Your task to perform on an android device: Open the Play Movies app and select the watchlist tab. Image 0: 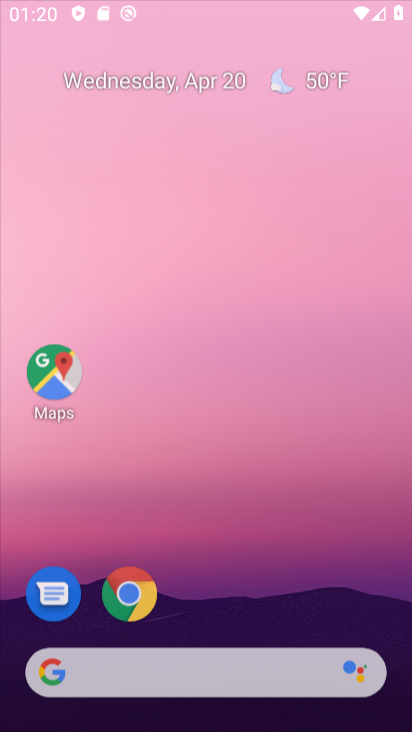
Step 0: click (142, 597)
Your task to perform on an android device: Open the Play Movies app and select the watchlist tab. Image 1: 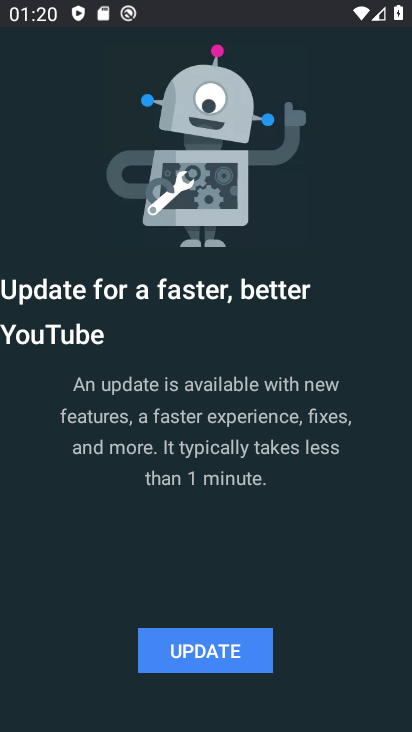
Step 1: click (222, 657)
Your task to perform on an android device: Open the Play Movies app and select the watchlist tab. Image 2: 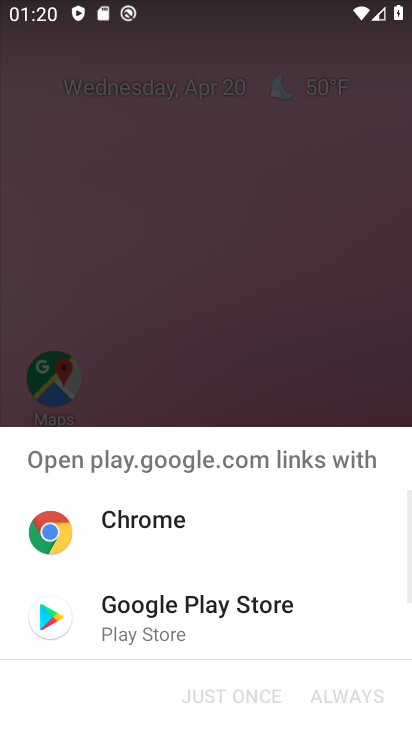
Step 2: click (183, 618)
Your task to perform on an android device: Open the Play Movies app and select the watchlist tab. Image 3: 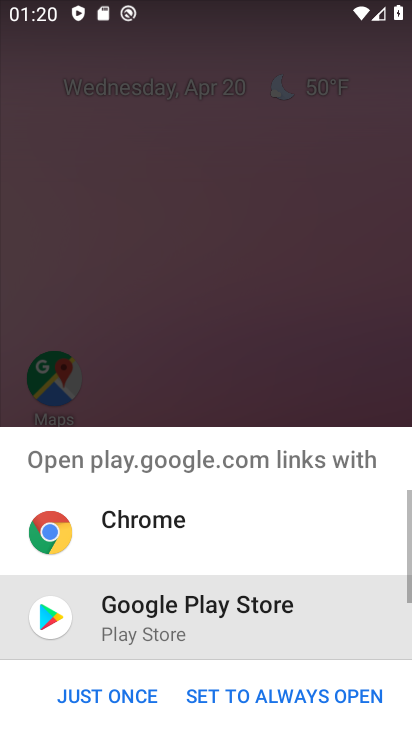
Step 3: click (183, 618)
Your task to perform on an android device: Open the Play Movies app and select the watchlist tab. Image 4: 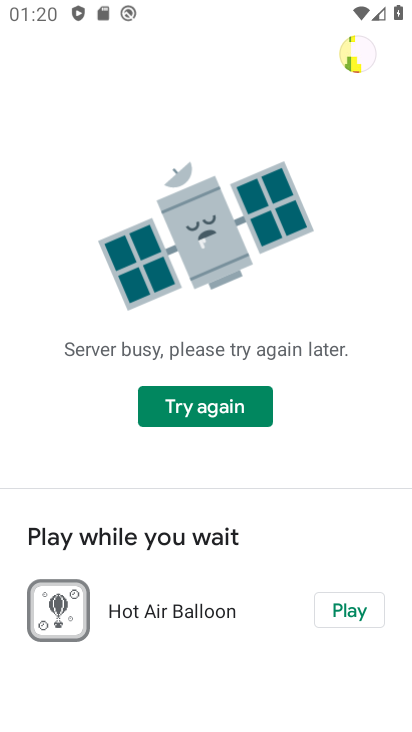
Step 4: click (216, 398)
Your task to perform on an android device: Open the Play Movies app and select the watchlist tab. Image 5: 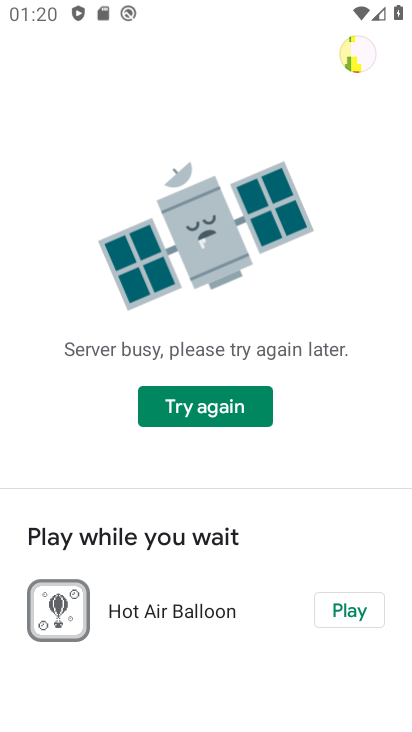
Step 5: task complete